Your task to perform on an android device: check battery use Image 0: 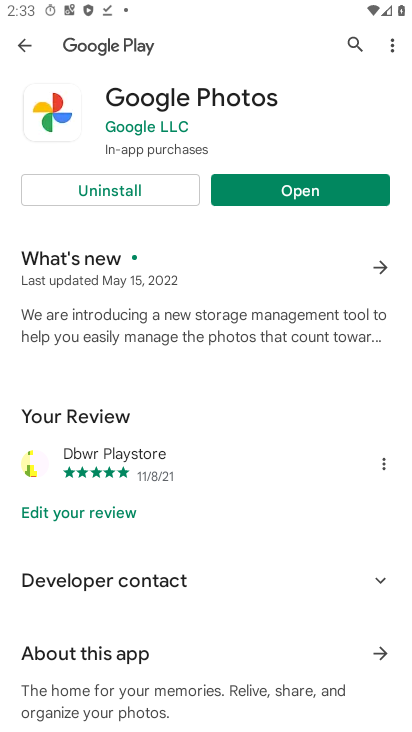
Step 0: click (356, 219)
Your task to perform on an android device: check battery use Image 1: 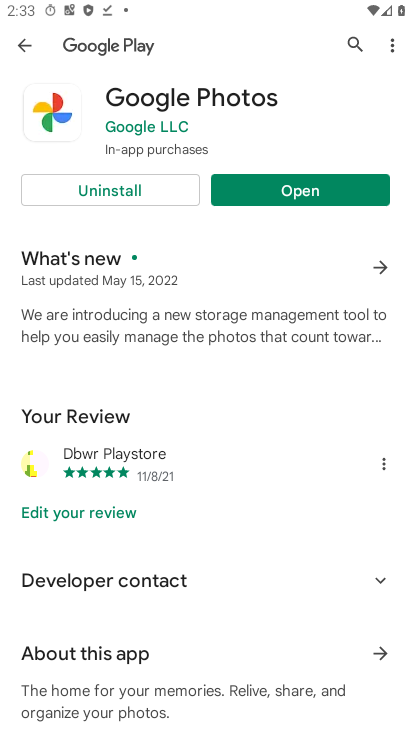
Step 1: press home button
Your task to perform on an android device: check battery use Image 2: 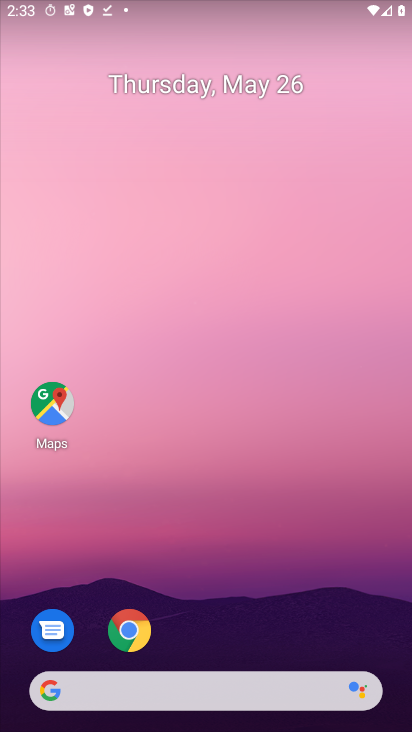
Step 2: drag from (247, 572) to (178, 239)
Your task to perform on an android device: check battery use Image 3: 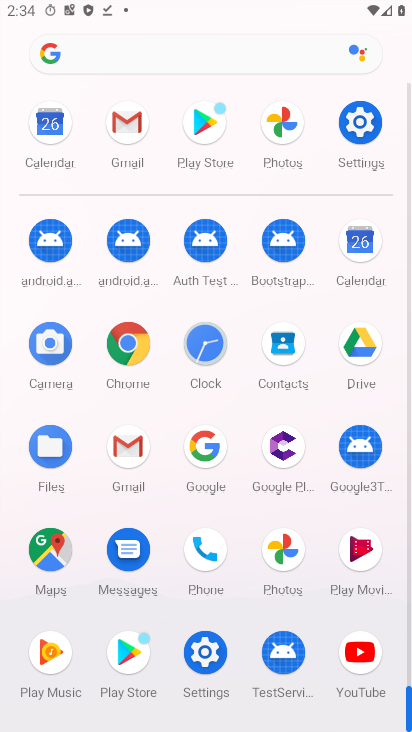
Step 3: click (370, 129)
Your task to perform on an android device: check battery use Image 4: 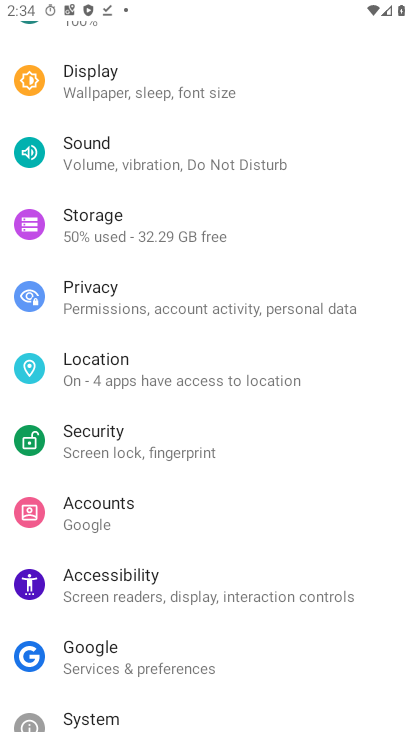
Step 4: drag from (101, 86) to (171, 536)
Your task to perform on an android device: check battery use Image 5: 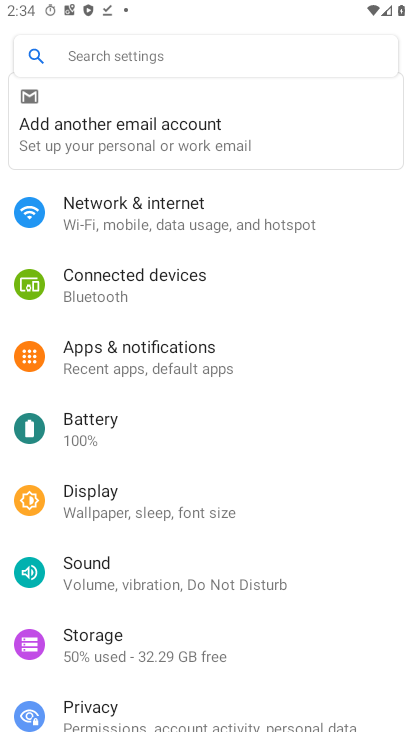
Step 5: click (161, 414)
Your task to perform on an android device: check battery use Image 6: 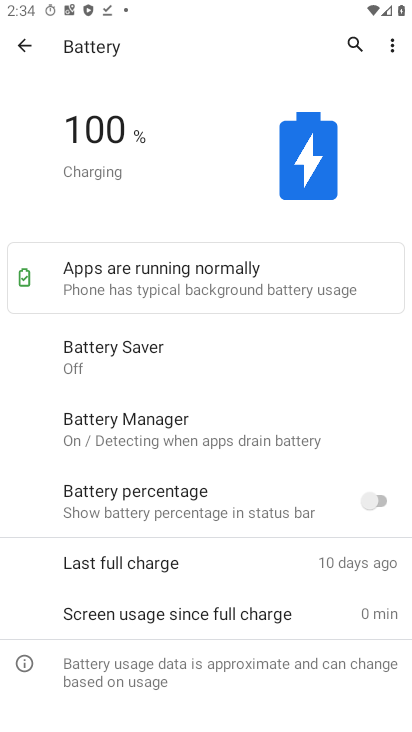
Step 6: task complete